Your task to perform on an android device: Open Chrome and go to the settings page Image 0: 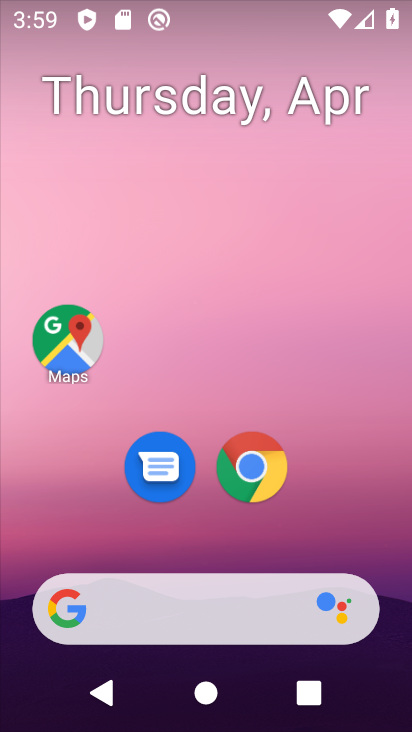
Step 0: click (278, 342)
Your task to perform on an android device: Open Chrome and go to the settings page Image 1: 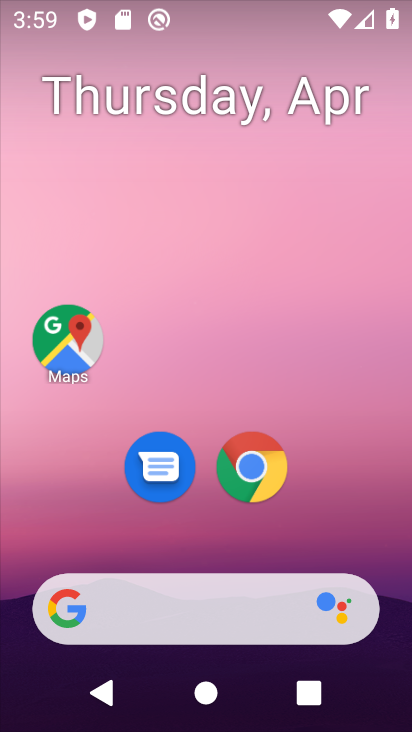
Step 1: click (206, 530)
Your task to perform on an android device: Open Chrome and go to the settings page Image 2: 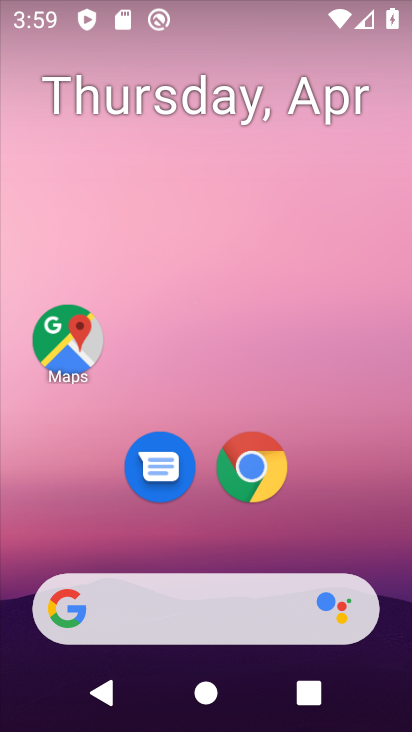
Step 2: click (277, 454)
Your task to perform on an android device: Open Chrome and go to the settings page Image 3: 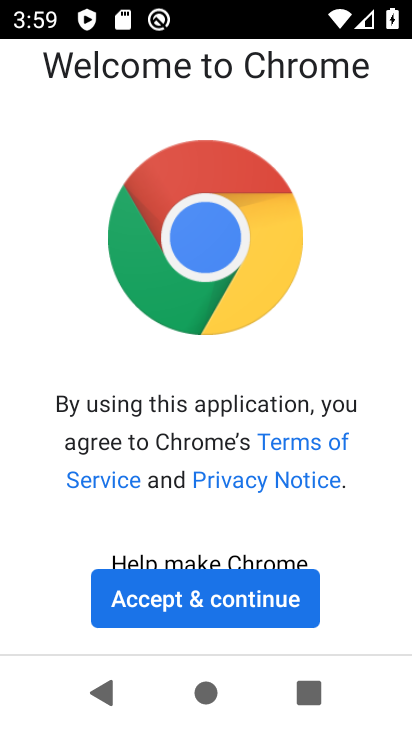
Step 3: click (209, 595)
Your task to perform on an android device: Open Chrome and go to the settings page Image 4: 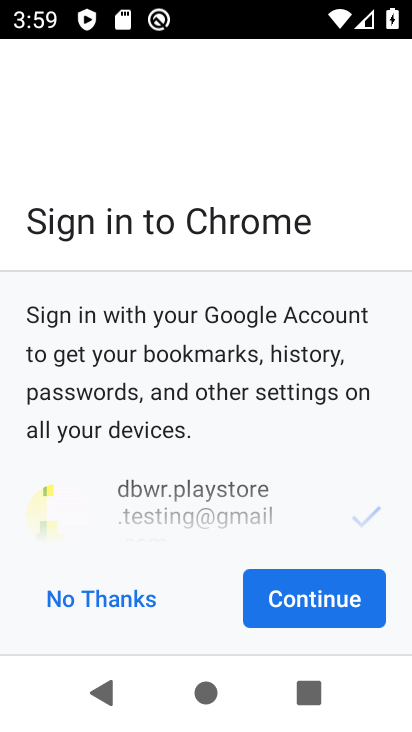
Step 4: click (337, 595)
Your task to perform on an android device: Open Chrome and go to the settings page Image 5: 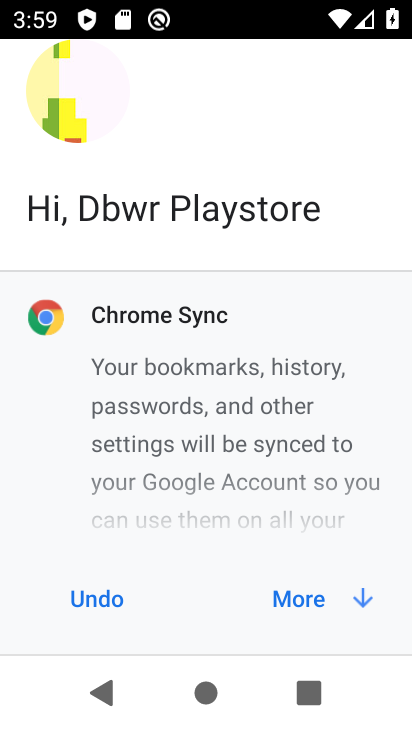
Step 5: click (337, 593)
Your task to perform on an android device: Open Chrome and go to the settings page Image 6: 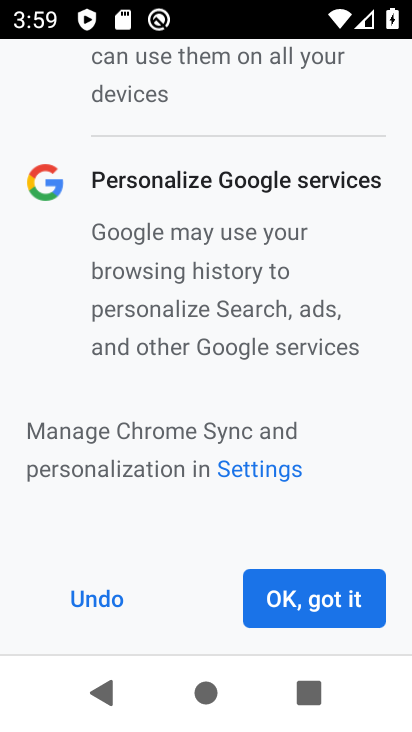
Step 6: click (337, 593)
Your task to perform on an android device: Open Chrome and go to the settings page Image 7: 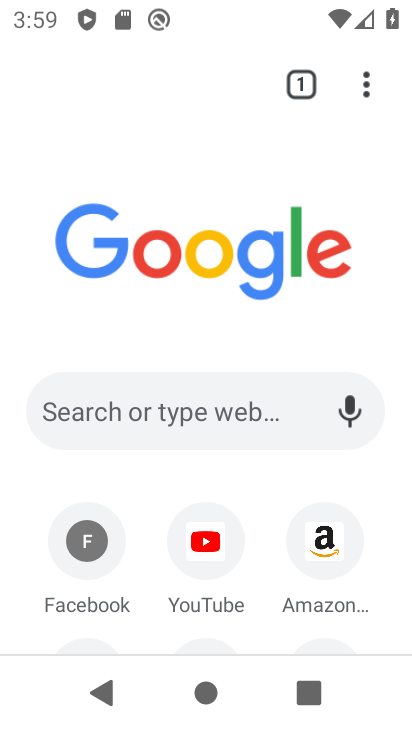
Step 7: click (378, 95)
Your task to perform on an android device: Open Chrome and go to the settings page Image 8: 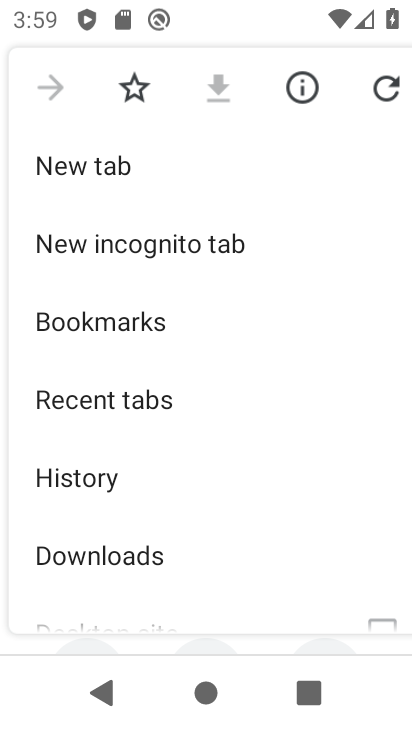
Step 8: drag from (128, 483) to (223, 105)
Your task to perform on an android device: Open Chrome and go to the settings page Image 9: 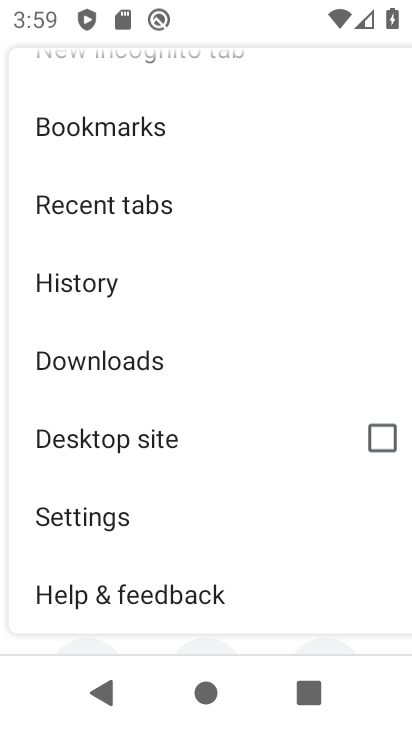
Step 9: click (111, 511)
Your task to perform on an android device: Open Chrome and go to the settings page Image 10: 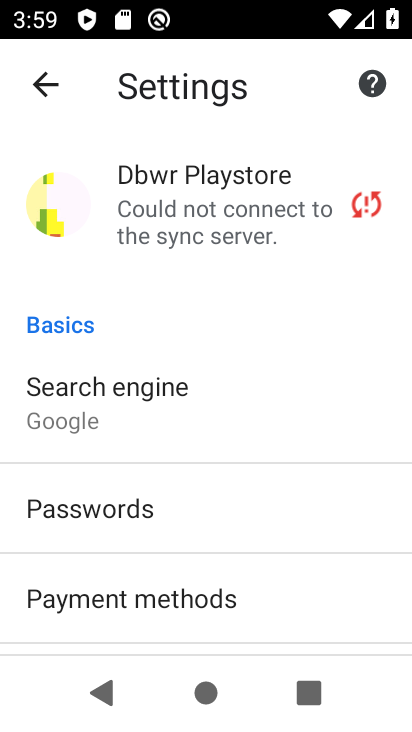
Step 10: task complete